Your task to perform on an android device: Open Yahoo.com Image 0: 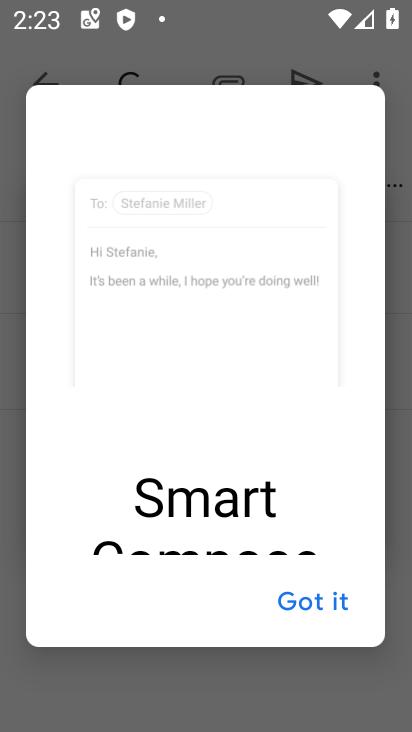
Step 0: press home button
Your task to perform on an android device: Open Yahoo.com Image 1: 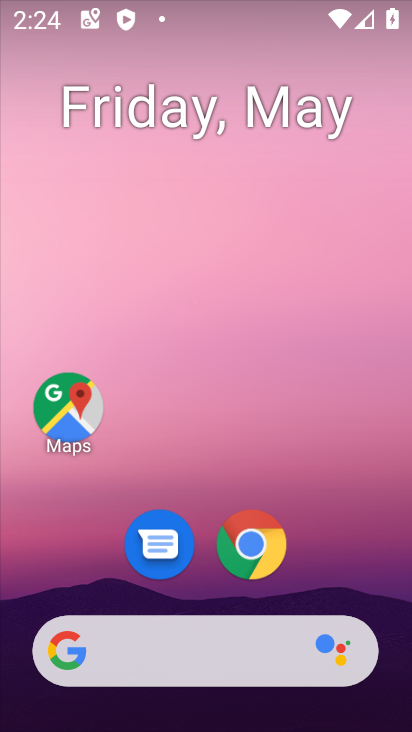
Step 1: click (273, 537)
Your task to perform on an android device: Open Yahoo.com Image 2: 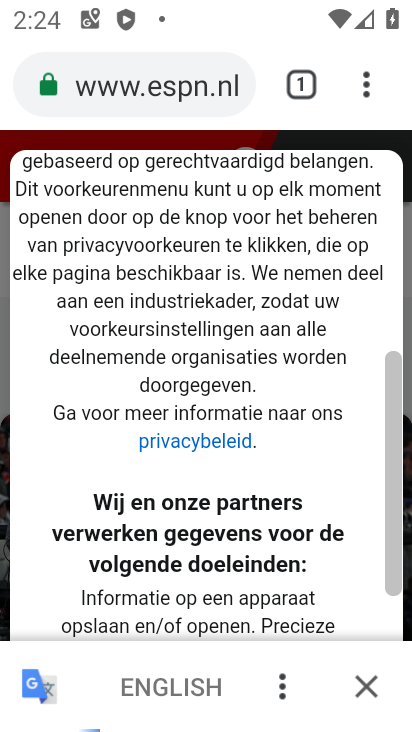
Step 2: click (314, 81)
Your task to perform on an android device: Open Yahoo.com Image 3: 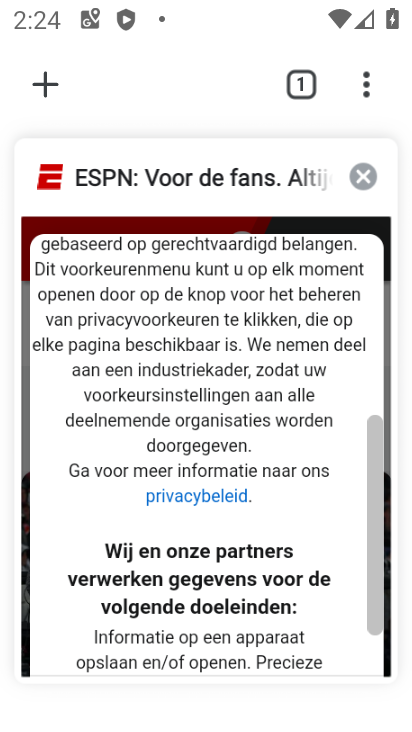
Step 3: click (54, 81)
Your task to perform on an android device: Open Yahoo.com Image 4: 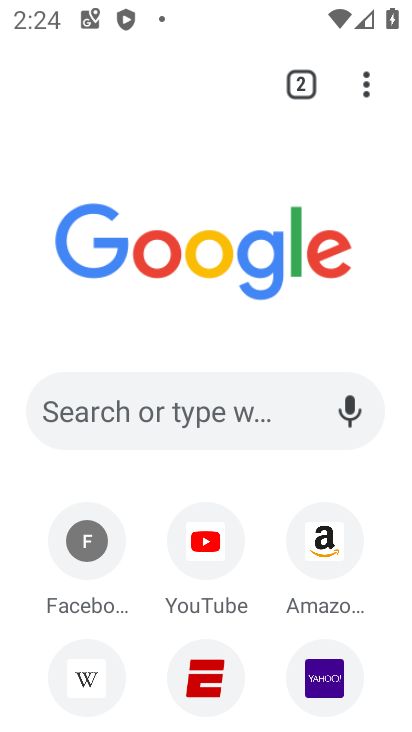
Step 4: click (303, 680)
Your task to perform on an android device: Open Yahoo.com Image 5: 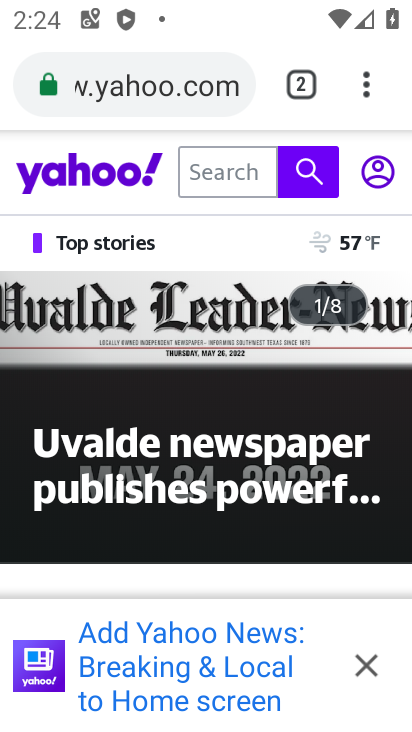
Step 5: task complete